Your task to perform on an android device: Open Google Chrome and click the shortcut for Amazon.com Image 0: 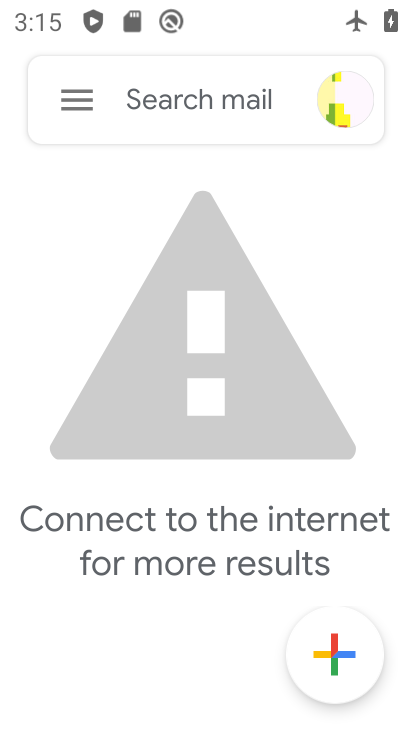
Step 0: press home button
Your task to perform on an android device: Open Google Chrome and click the shortcut for Amazon.com Image 1: 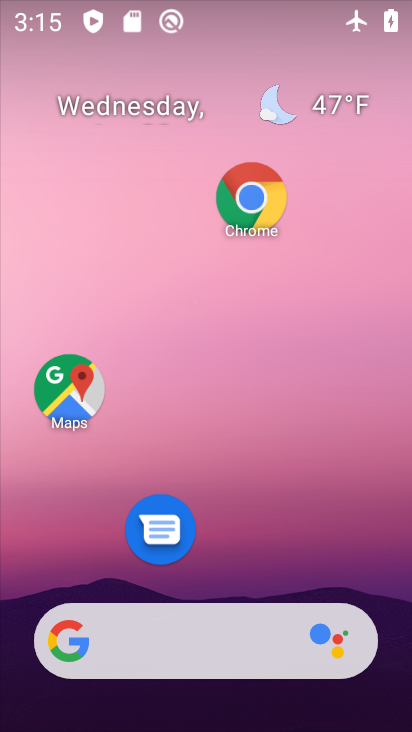
Step 1: click (245, 198)
Your task to perform on an android device: Open Google Chrome and click the shortcut for Amazon.com Image 2: 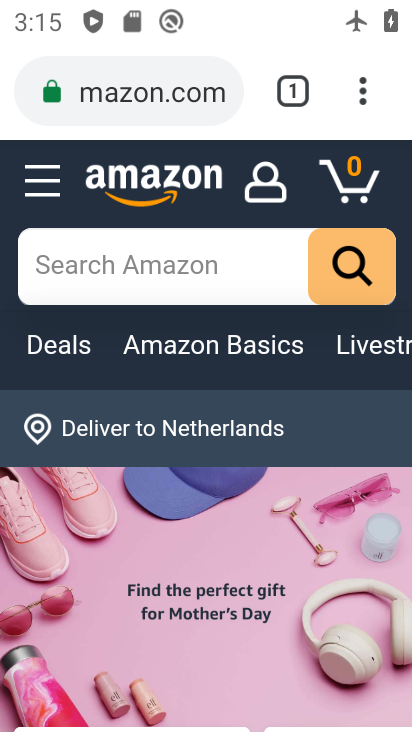
Step 2: task complete